Your task to perform on an android device: change the clock display to show seconds Image 0: 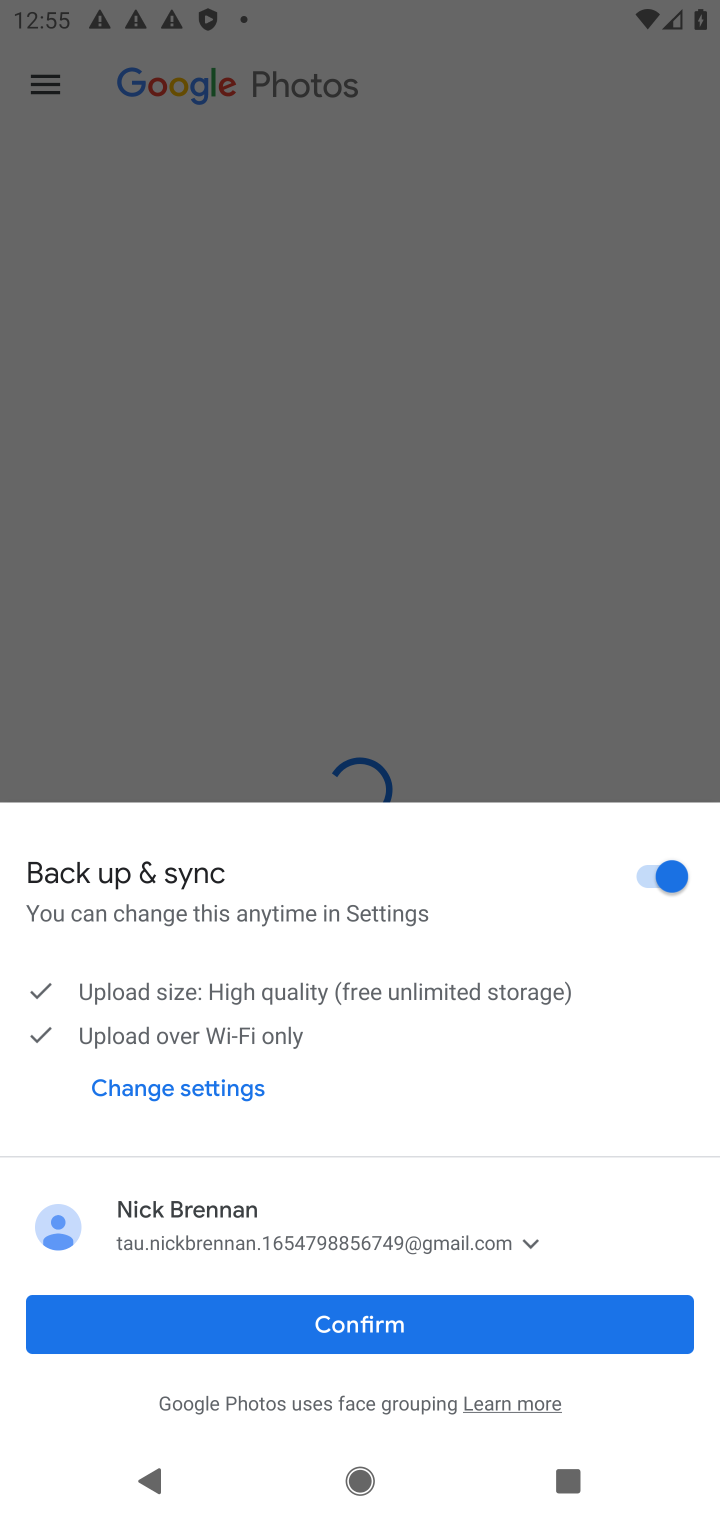
Step 0: press home button
Your task to perform on an android device: change the clock display to show seconds Image 1: 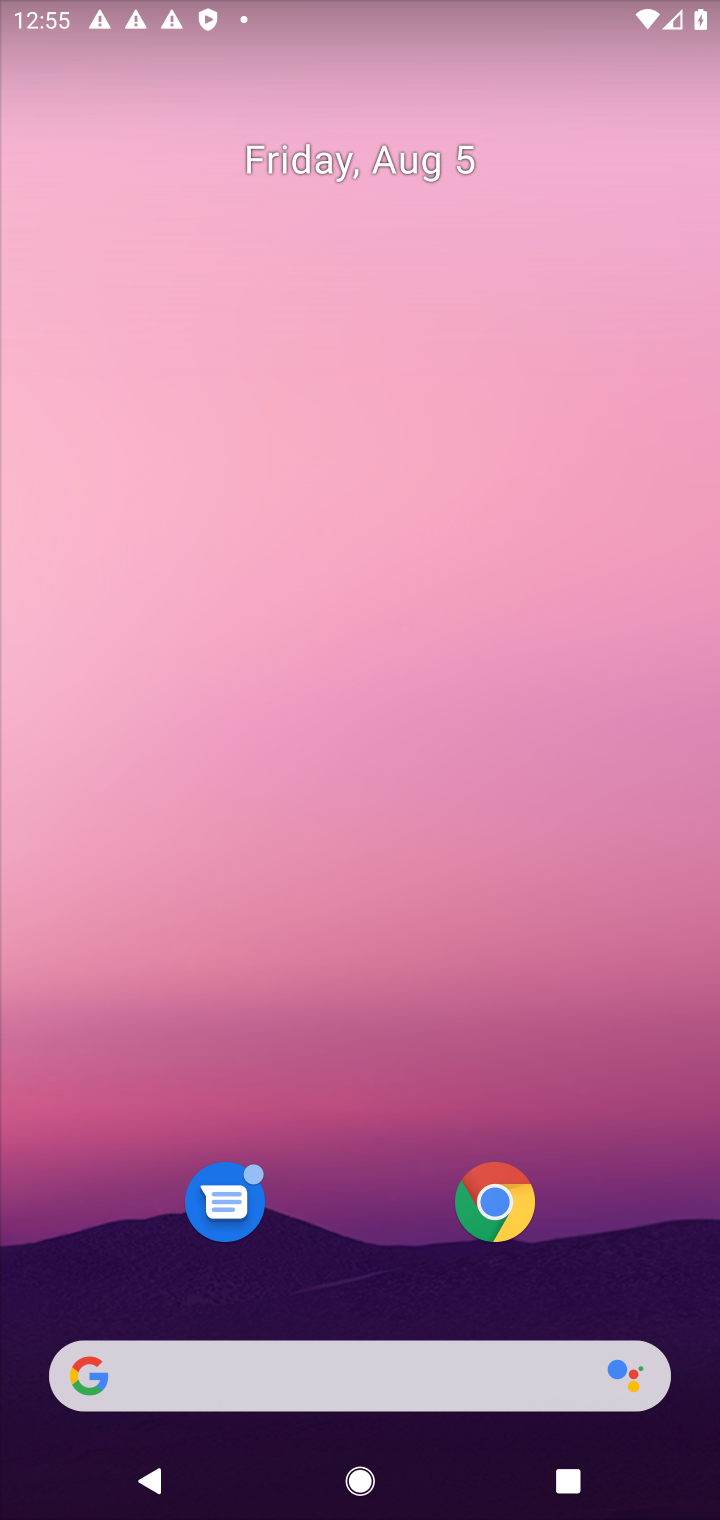
Step 1: drag from (473, 701) to (549, 65)
Your task to perform on an android device: change the clock display to show seconds Image 2: 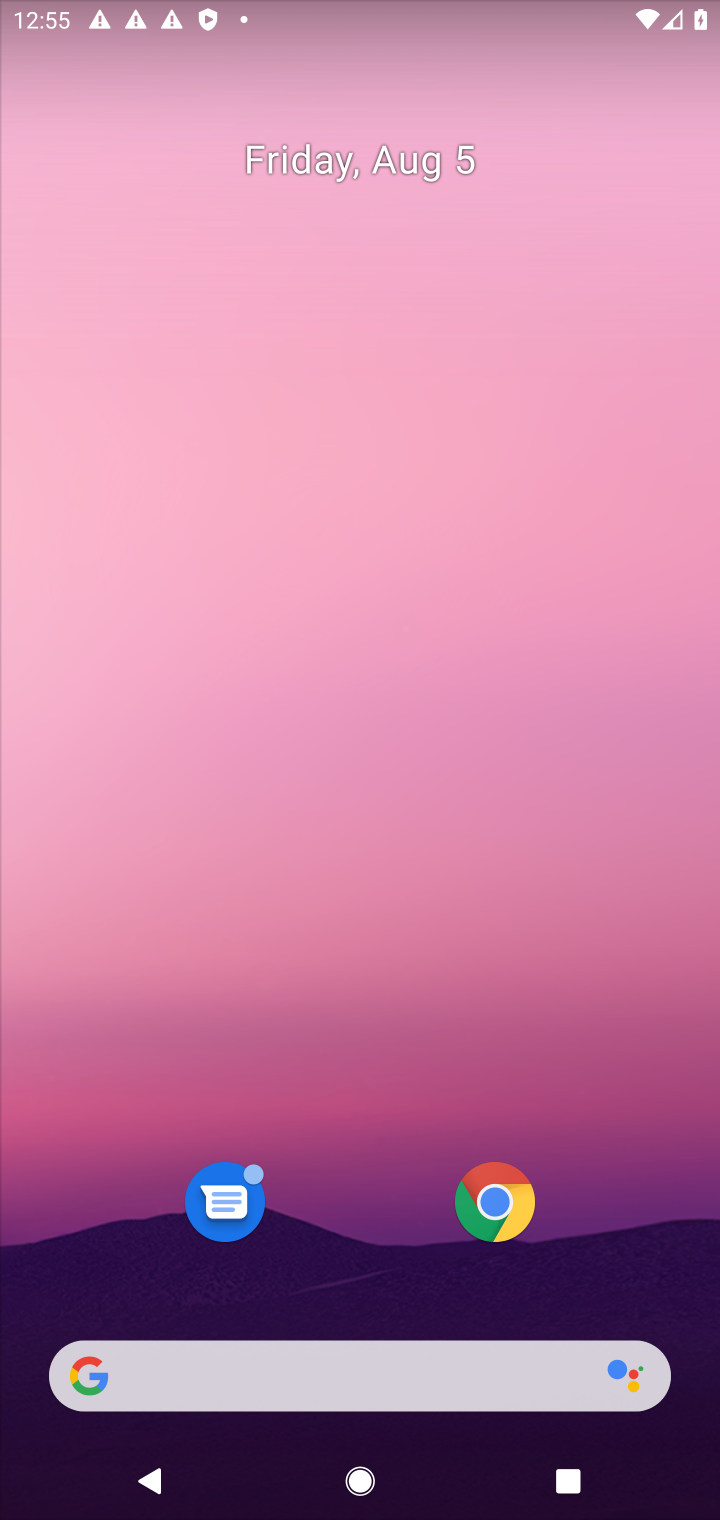
Step 2: drag from (379, 1270) to (514, 242)
Your task to perform on an android device: change the clock display to show seconds Image 3: 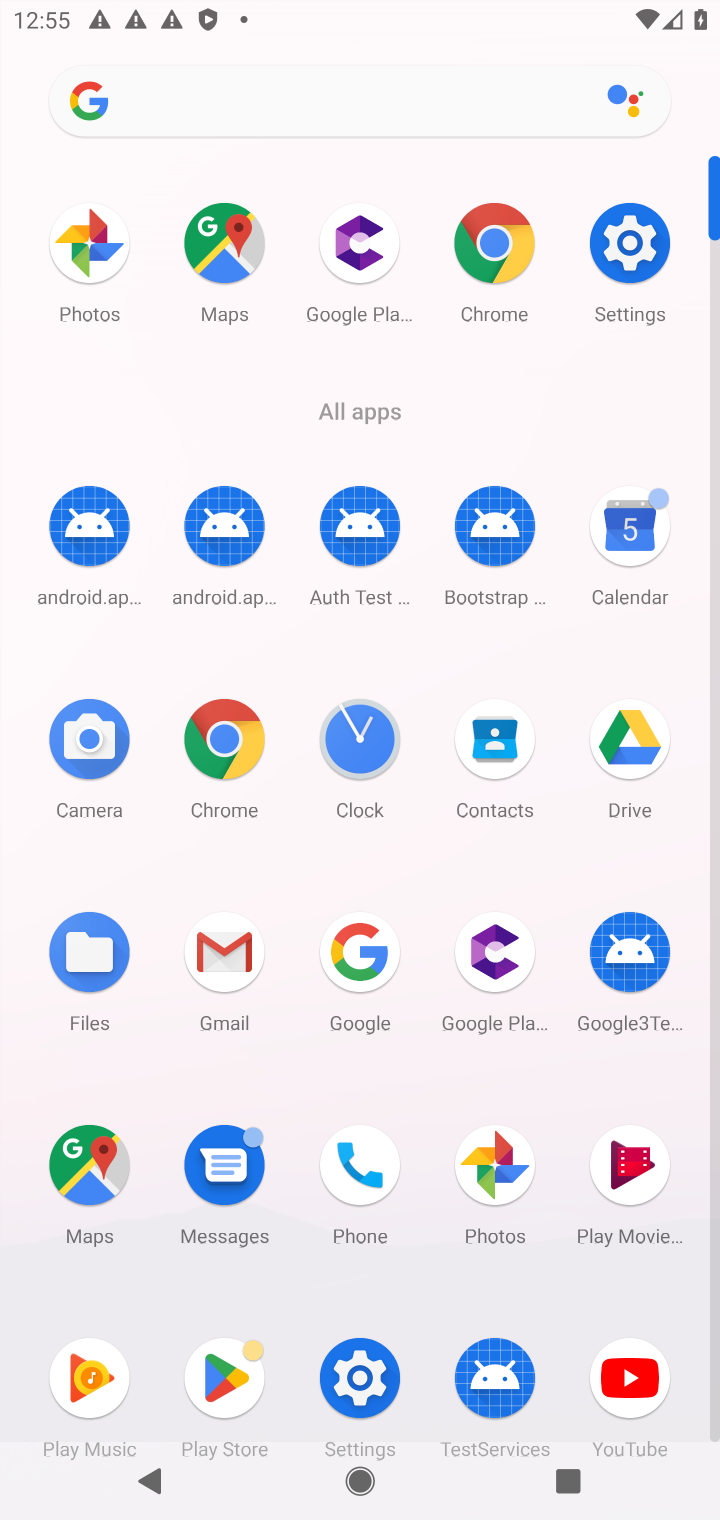
Step 3: click (383, 739)
Your task to perform on an android device: change the clock display to show seconds Image 4: 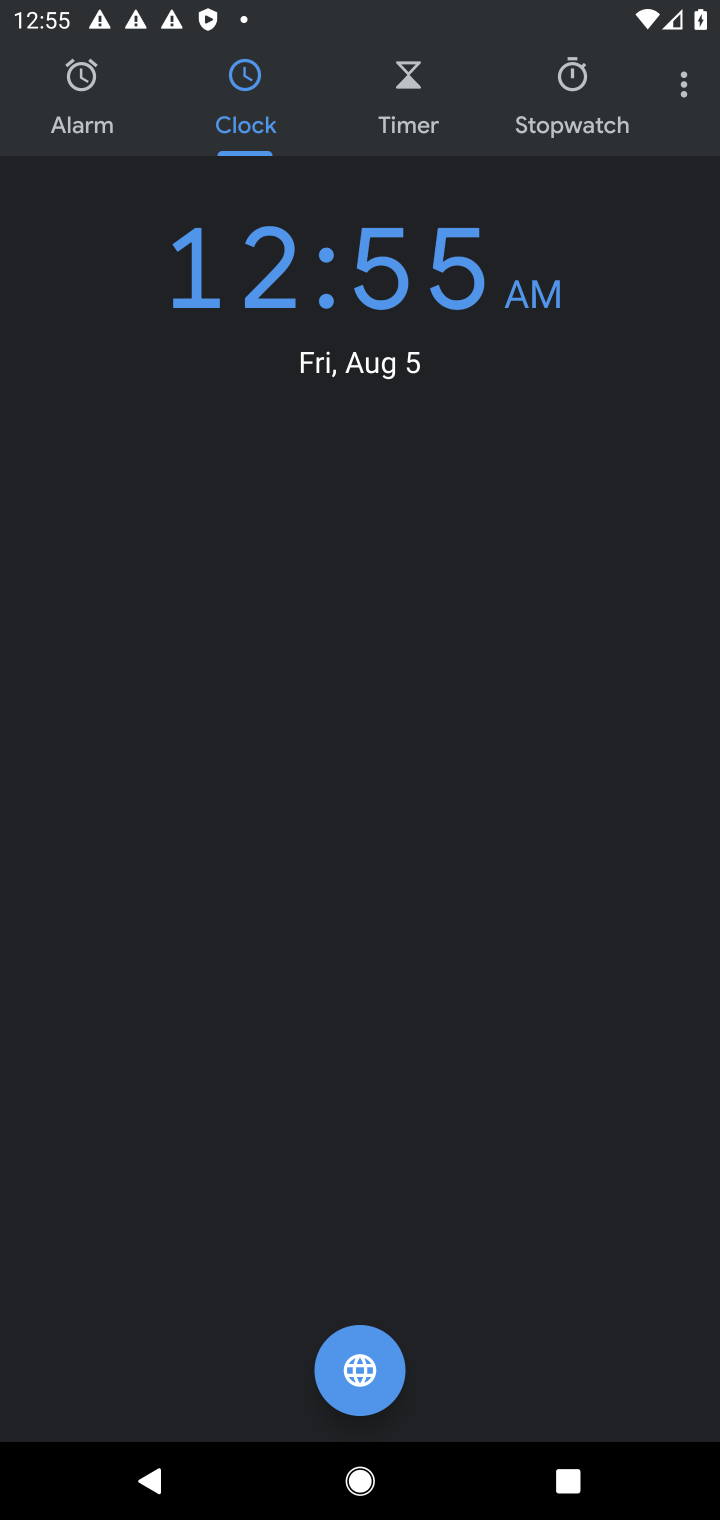
Step 4: click (690, 84)
Your task to perform on an android device: change the clock display to show seconds Image 5: 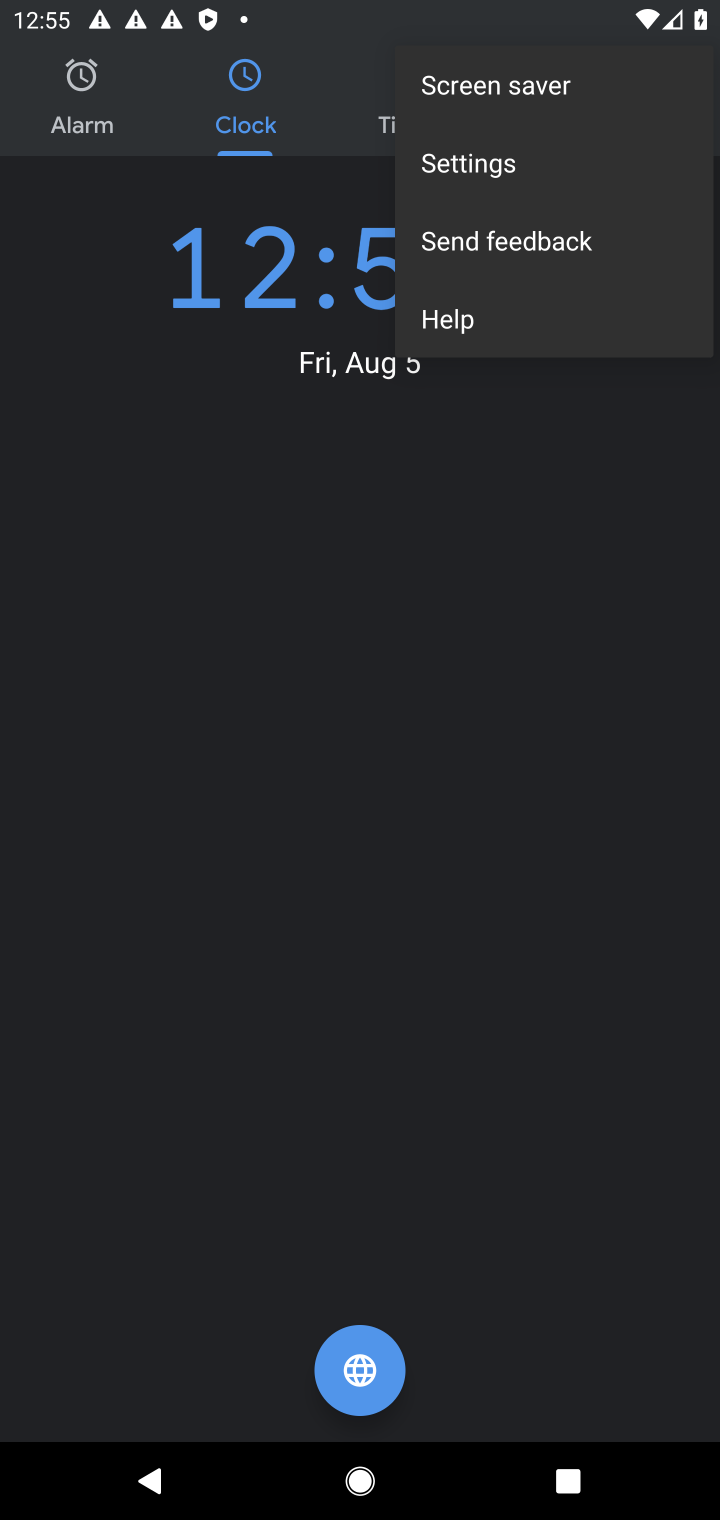
Step 5: click (529, 160)
Your task to perform on an android device: change the clock display to show seconds Image 6: 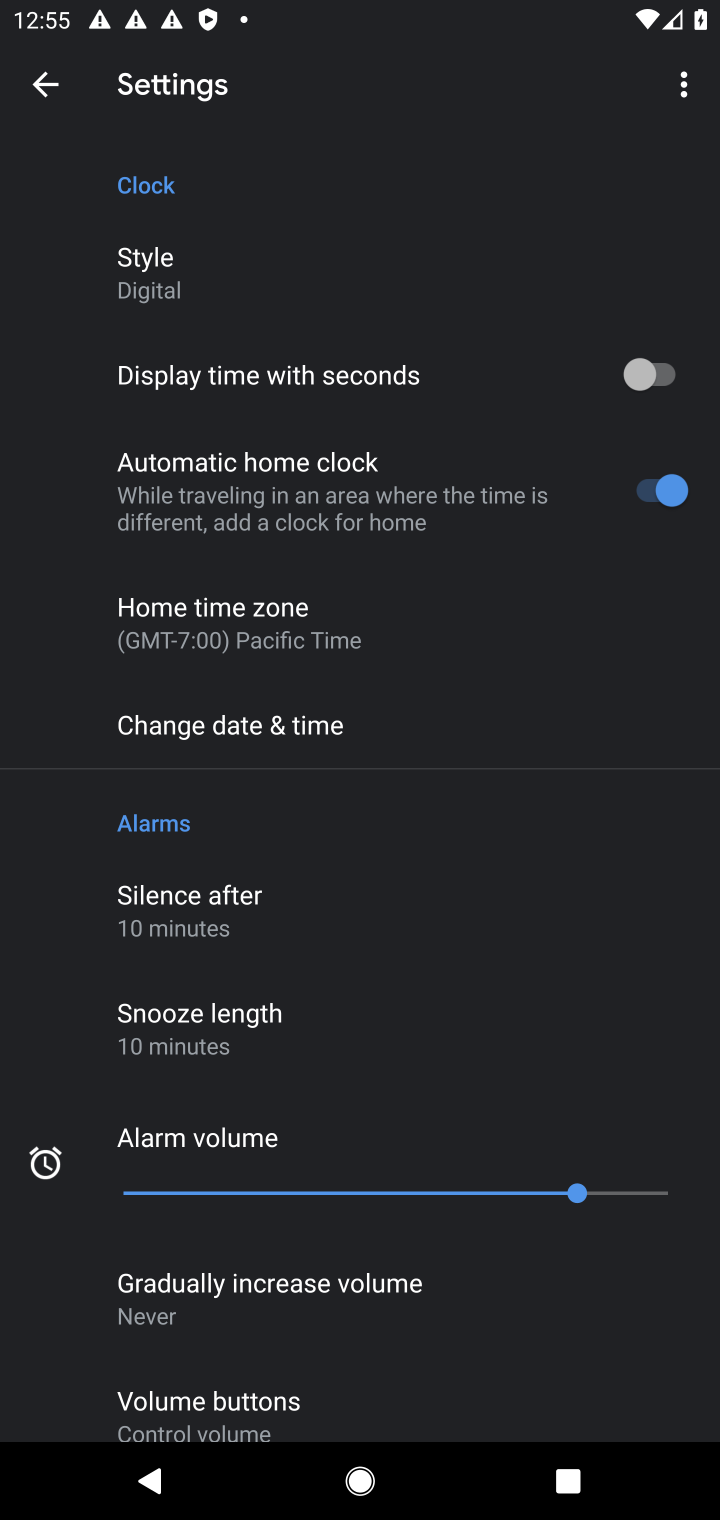
Step 6: click (640, 383)
Your task to perform on an android device: change the clock display to show seconds Image 7: 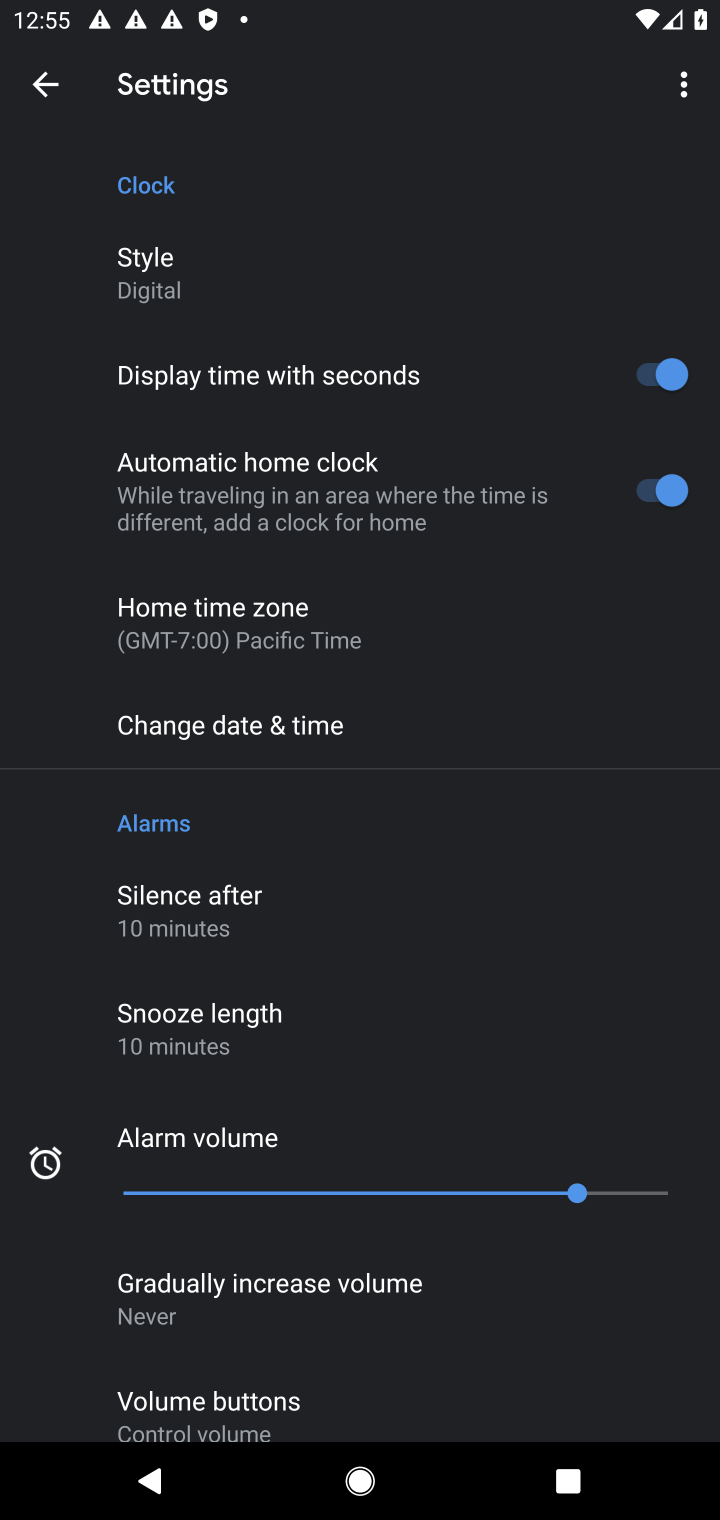
Step 7: task complete